Your task to perform on an android device: change text size in settings app Image 0: 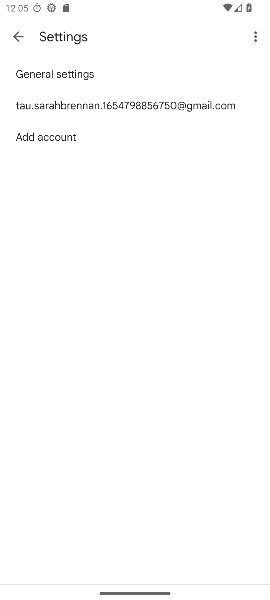
Step 0: press home button
Your task to perform on an android device: change text size in settings app Image 1: 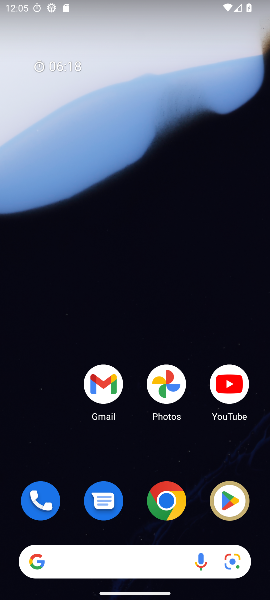
Step 1: click (248, 311)
Your task to perform on an android device: change text size in settings app Image 2: 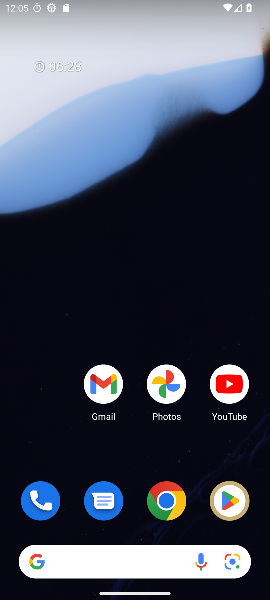
Step 2: drag from (163, 456) to (101, 206)
Your task to perform on an android device: change text size in settings app Image 3: 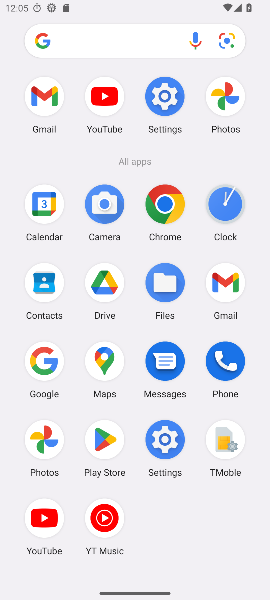
Step 3: click (165, 438)
Your task to perform on an android device: change text size in settings app Image 4: 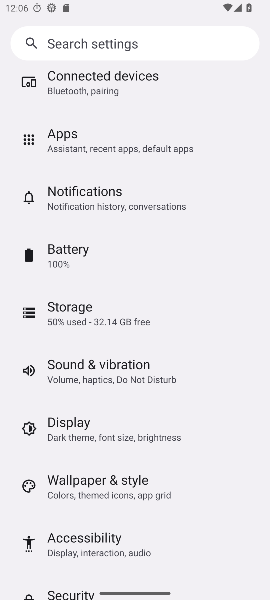
Step 4: click (129, 424)
Your task to perform on an android device: change text size in settings app Image 5: 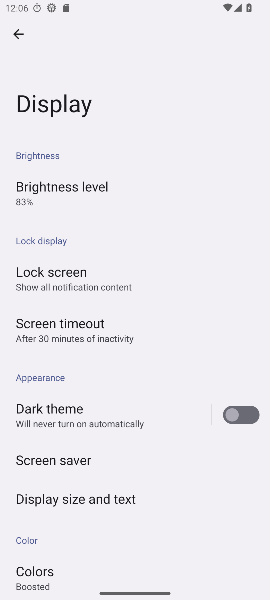
Step 5: drag from (130, 490) to (27, 218)
Your task to perform on an android device: change text size in settings app Image 6: 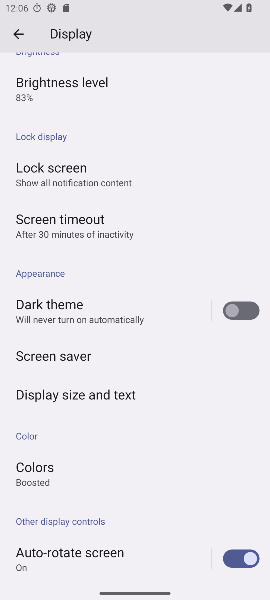
Step 6: click (134, 390)
Your task to perform on an android device: change text size in settings app Image 7: 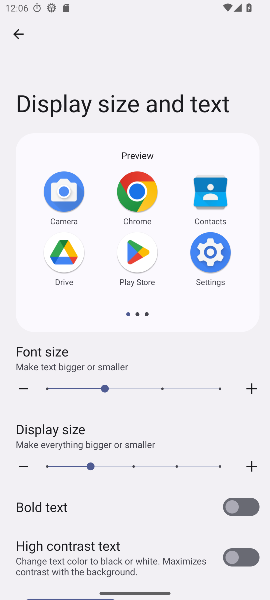
Step 7: task complete